Your task to perform on an android device: uninstall "PUBG MOBILE" Image 0: 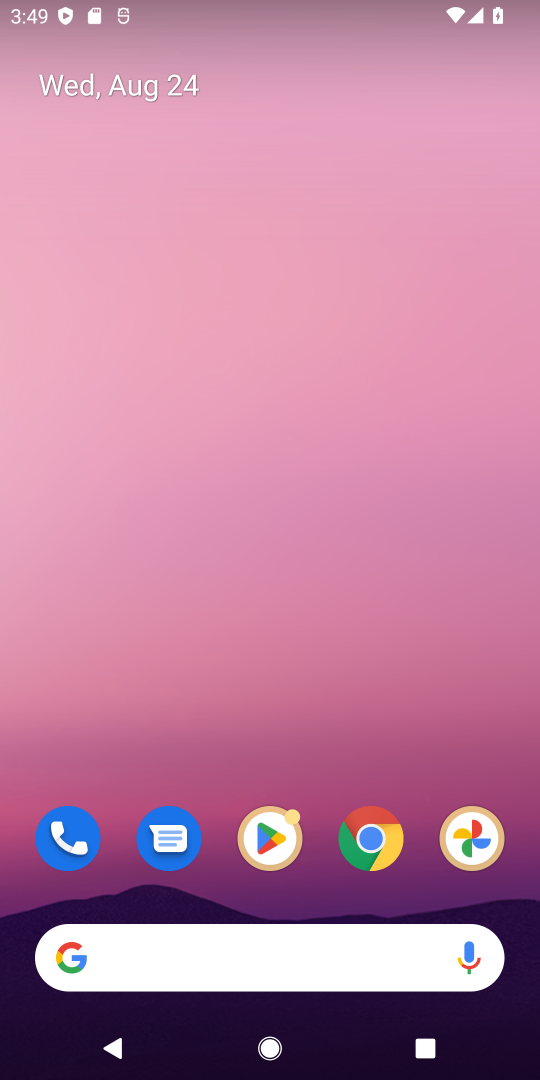
Step 0: click (270, 829)
Your task to perform on an android device: uninstall "PUBG MOBILE" Image 1: 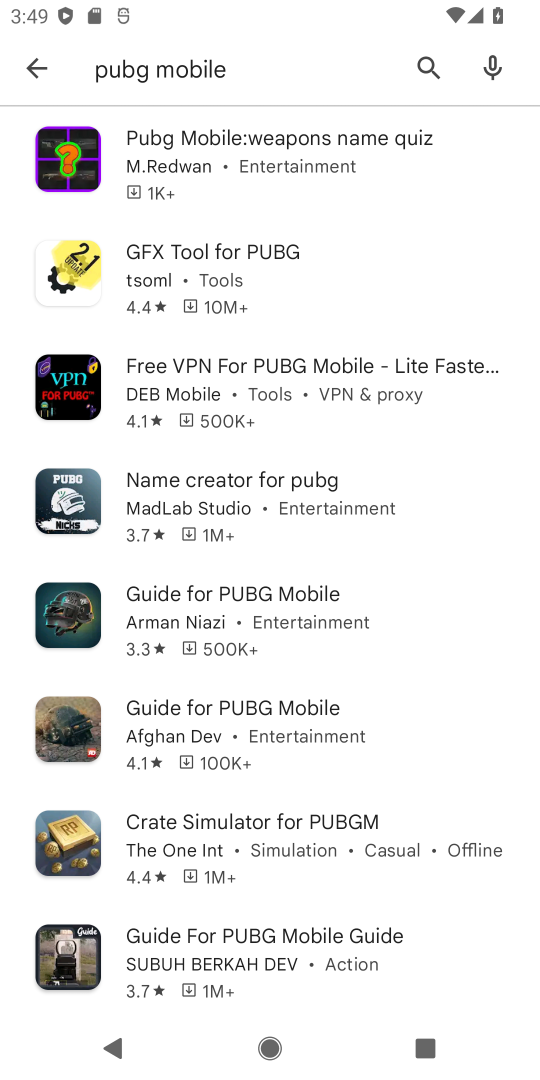
Step 1: click (423, 70)
Your task to perform on an android device: uninstall "PUBG MOBILE" Image 2: 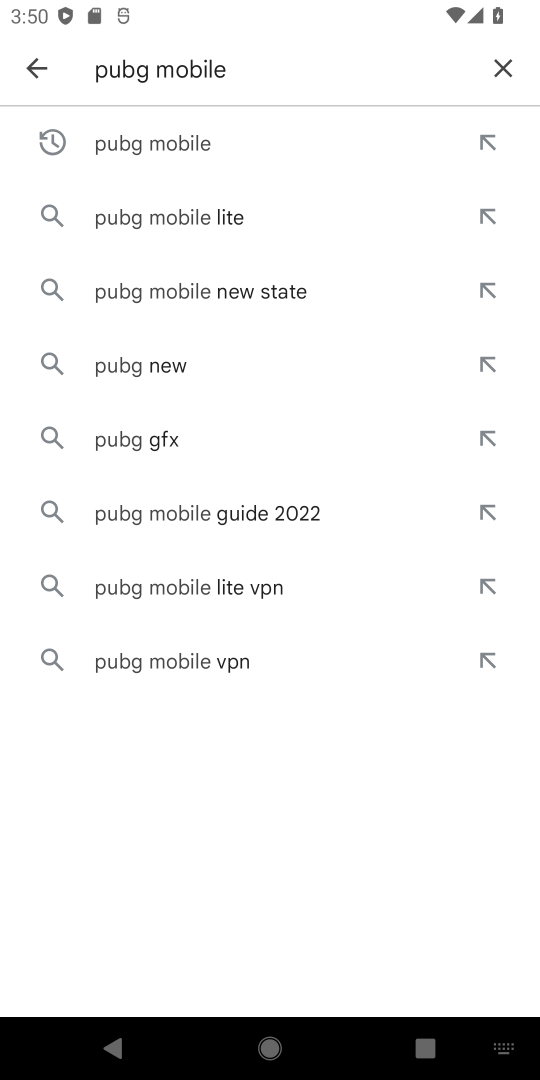
Step 2: task complete